Your task to perform on an android device: Open Google Maps and go to "Timeline" Image 0: 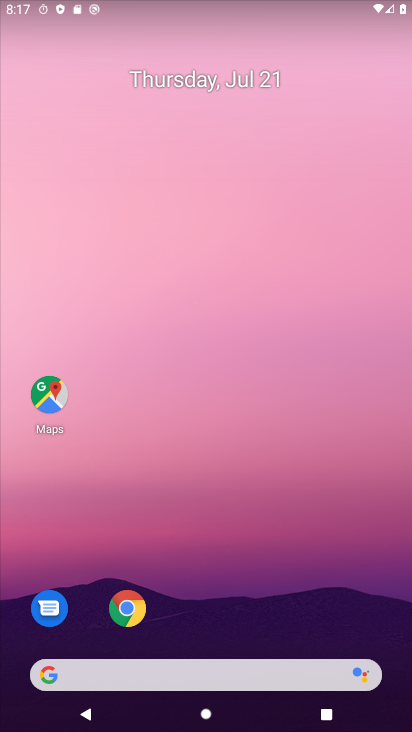
Step 0: click (50, 394)
Your task to perform on an android device: Open Google Maps and go to "Timeline" Image 1: 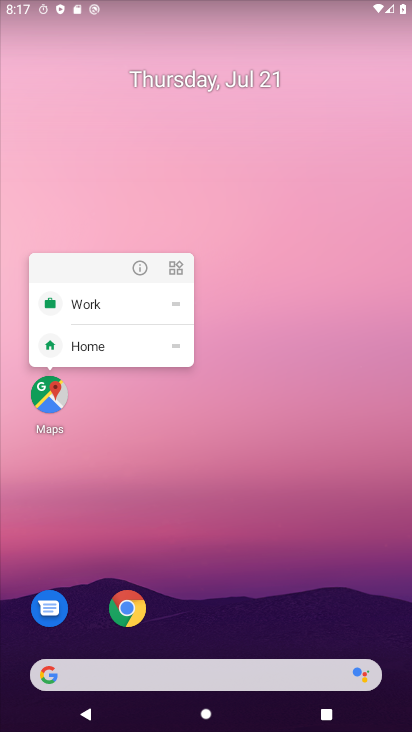
Step 1: click (50, 394)
Your task to perform on an android device: Open Google Maps and go to "Timeline" Image 2: 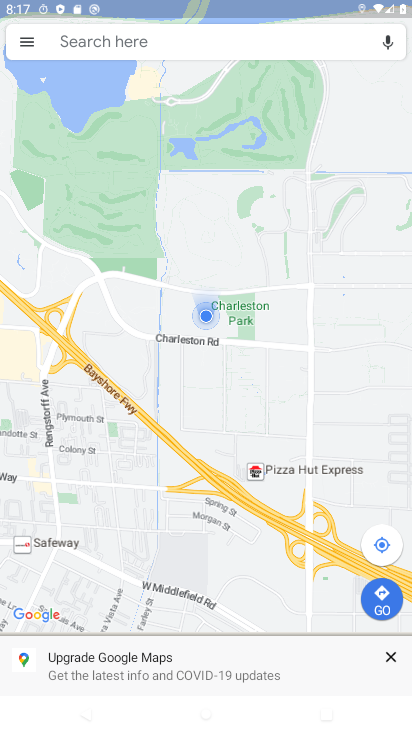
Step 2: click (31, 36)
Your task to perform on an android device: Open Google Maps and go to "Timeline" Image 3: 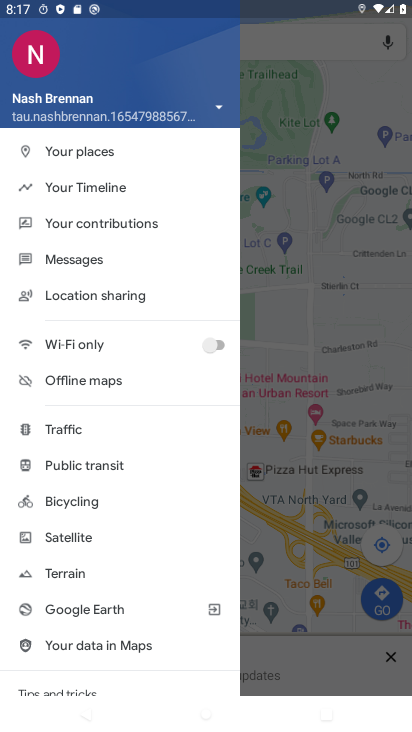
Step 3: click (42, 194)
Your task to perform on an android device: Open Google Maps and go to "Timeline" Image 4: 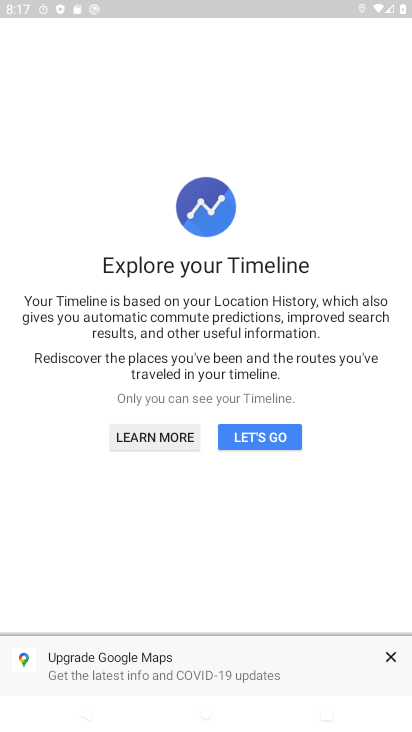
Step 4: click (268, 440)
Your task to perform on an android device: Open Google Maps and go to "Timeline" Image 5: 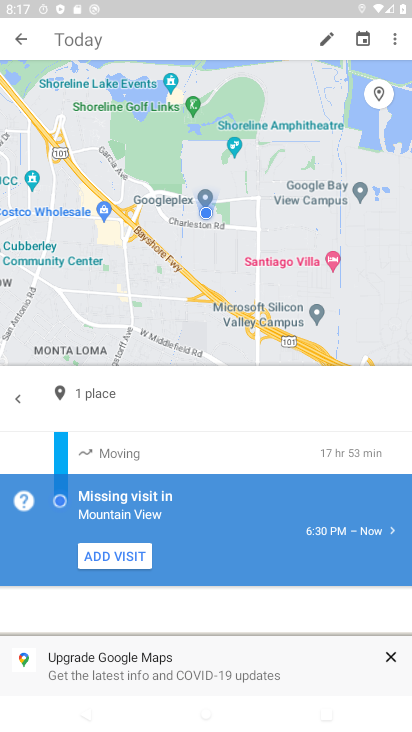
Step 5: task complete